Your task to perform on an android device: add a contact Image 0: 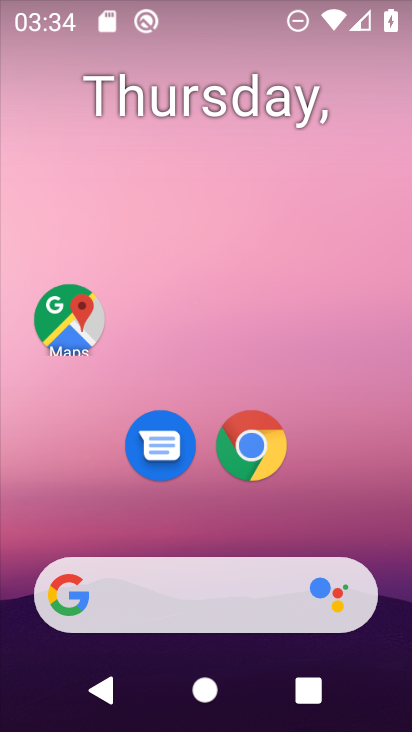
Step 0: drag from (365, 565) to (356, 0)
Your task to perform on an android device: add a contact Image 1: 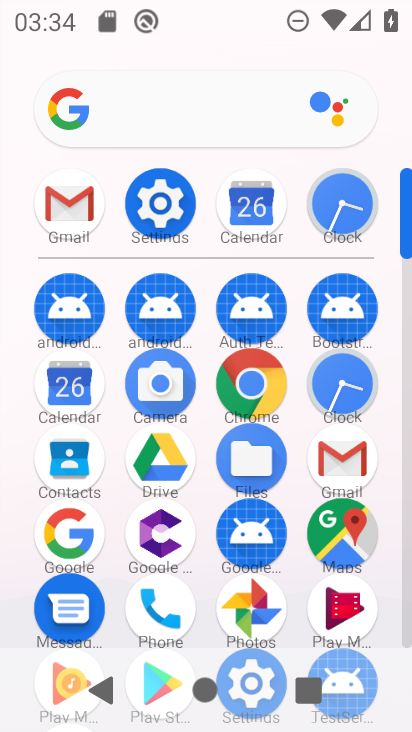
Step 1: click (60, 454)
Your task to perform on an android device: add a contact Image 2: 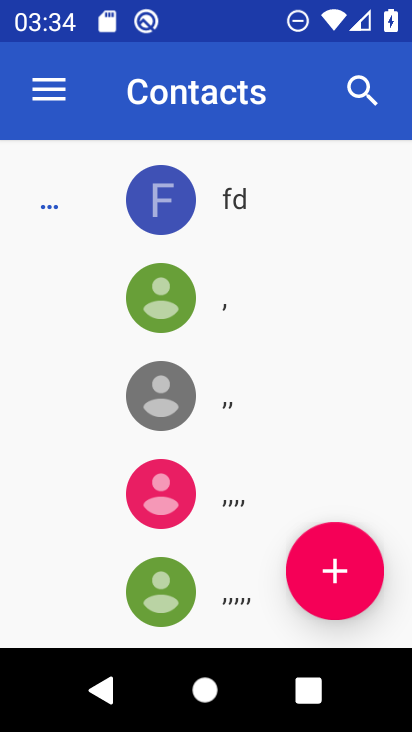
Step 2: click (331, 575)
Your task to perform on an android device: add a contact Image 3: 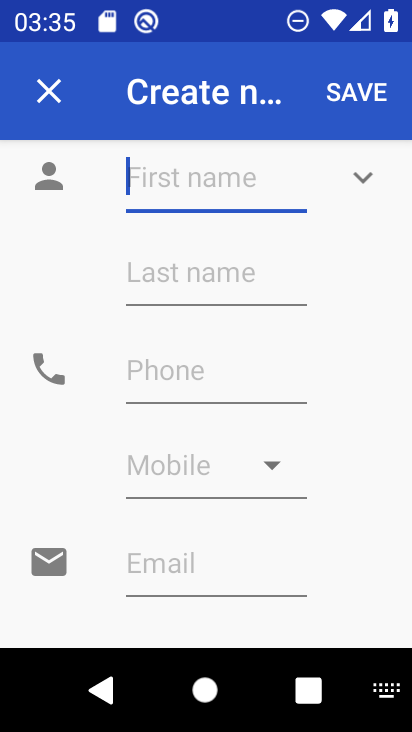
Step 3: type "roshan"
Your task to perform on an android device: add a contact Image 4: 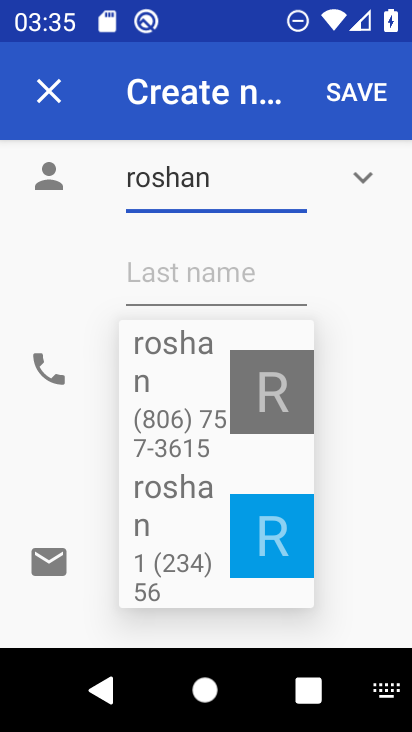
Step 4: click (356, 361)
Your task to perform on an android device: add a contact Image 5: 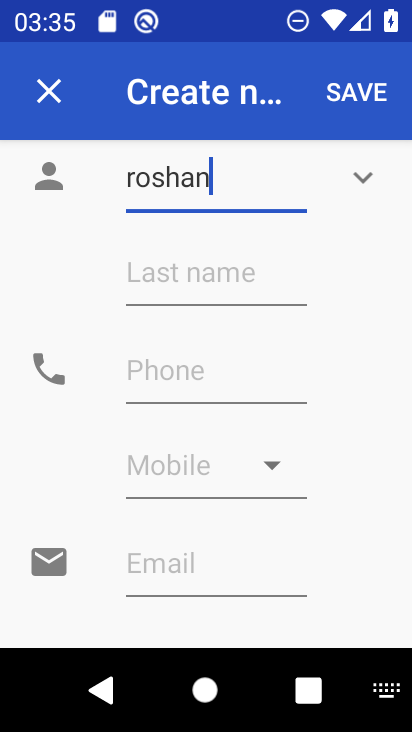
Step 5: click (172, 382)
Your task to perform on an android device: add a contact Image 6: 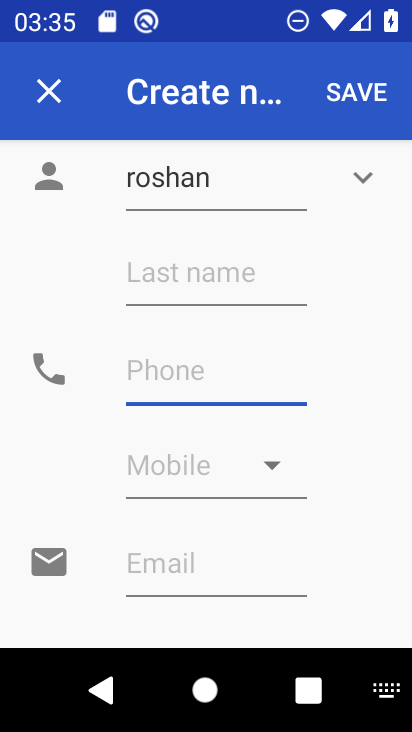
Step 6: type "98876467"
Your task to perform on an android device: add a contact Image 7: 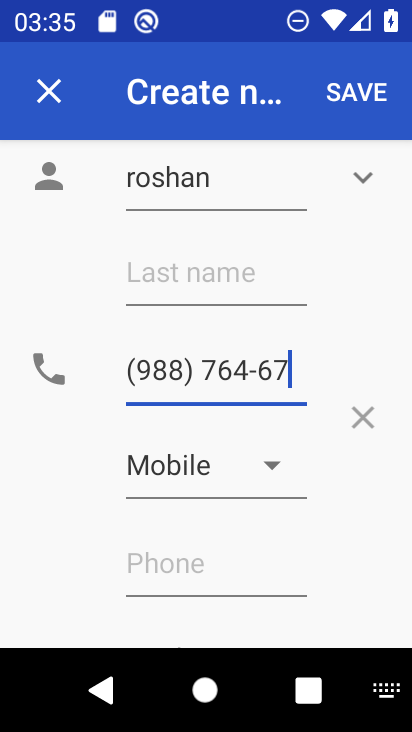
Step 7: click (363, 100)
Your task to perform on an android device: add a contact Image 8: 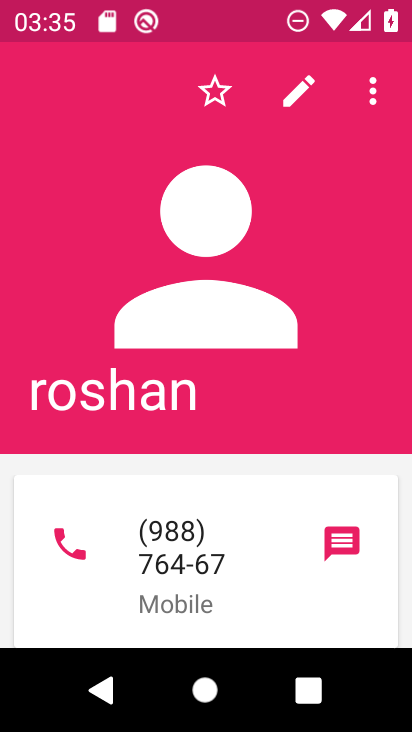
Step 8: task complete